Your task to perform on an android device: What's the weather going to be tomorrow? Image 0: 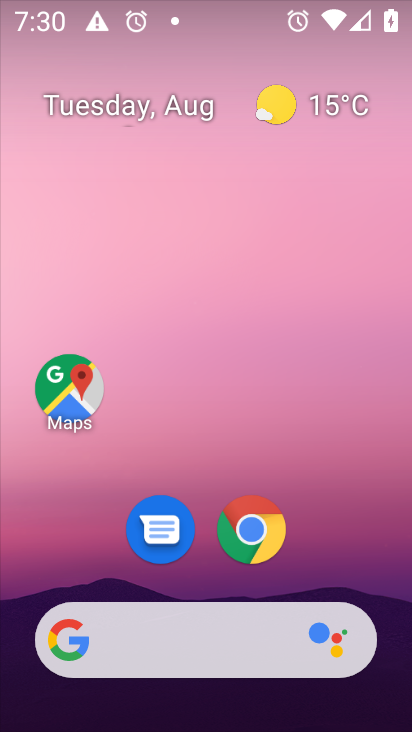
Step 0: press home button
Your task to perform on an android device: What's the weather going to be tomorrow? Image 1: 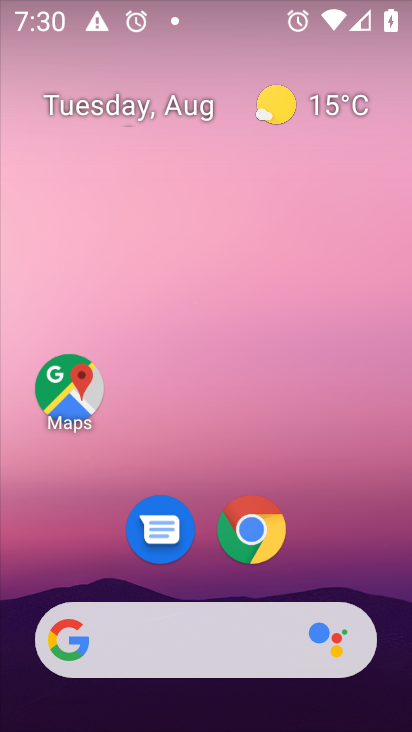
Step 1: click (67, 646)
Your task to perform on an android device: What's the weather going to be tomorrow? Image 2: 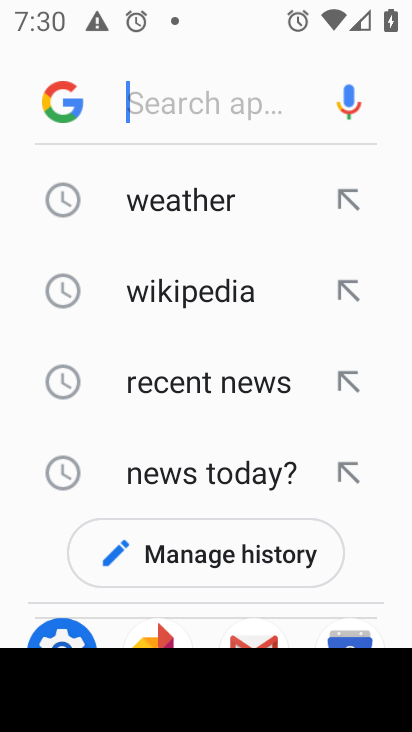
Step 2: type "weather going to be tomorrow?"
Your task to perform on an android device: What's the weather going to be tomorrow? Image 3: 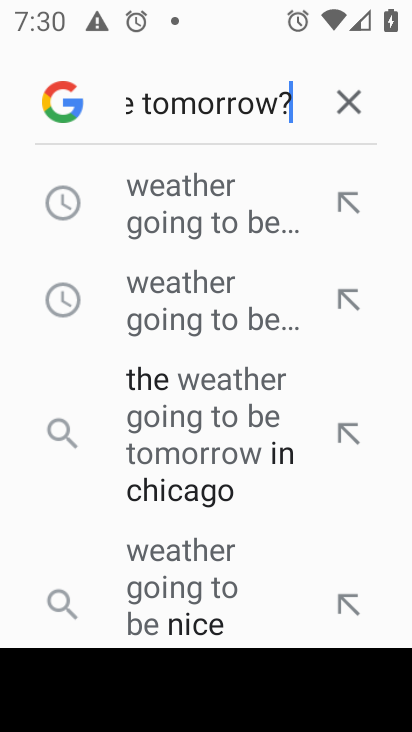
Step 3: press enter
Your task to perform on an android device: What's the weather going to be tomorrow? Image 4: 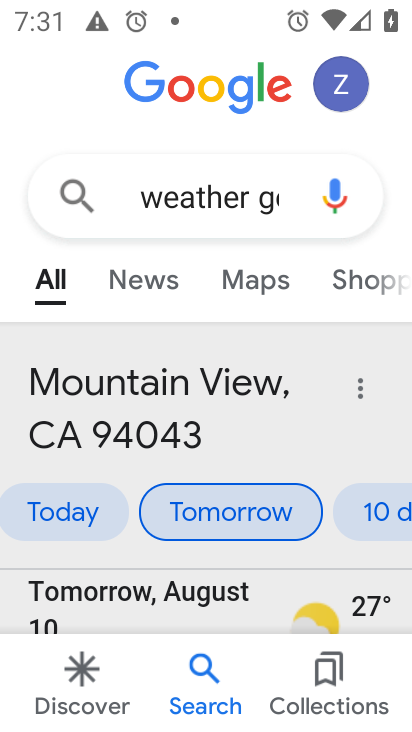
Step 4: task complete